Your task to perform on an android device: open app "NewsBreak: Local News & Alerts" (install if not already installed) Image 0: 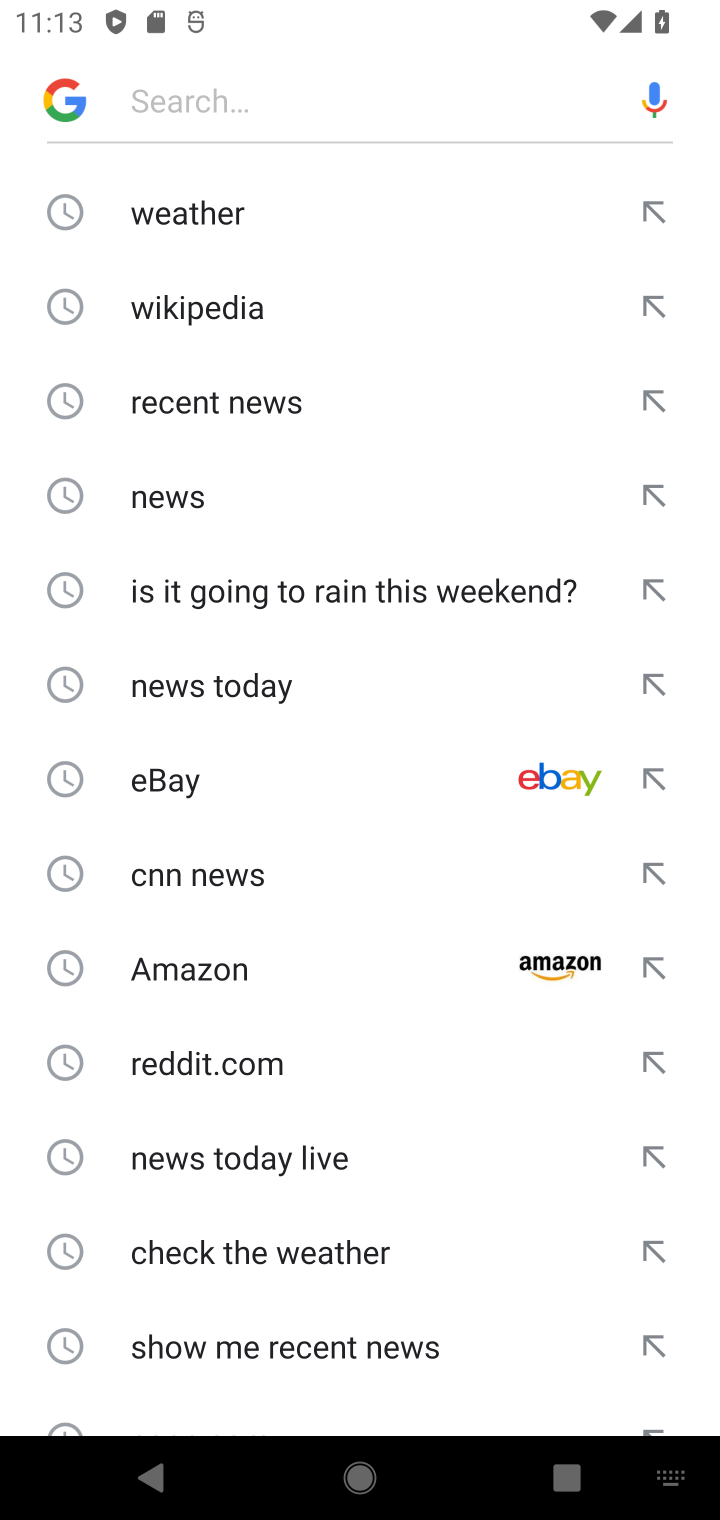
Step 0: press home button
Your task to perform on an android device: open app "NewsBreak: Local News & Alerts" (install if not already installed) Image 1: 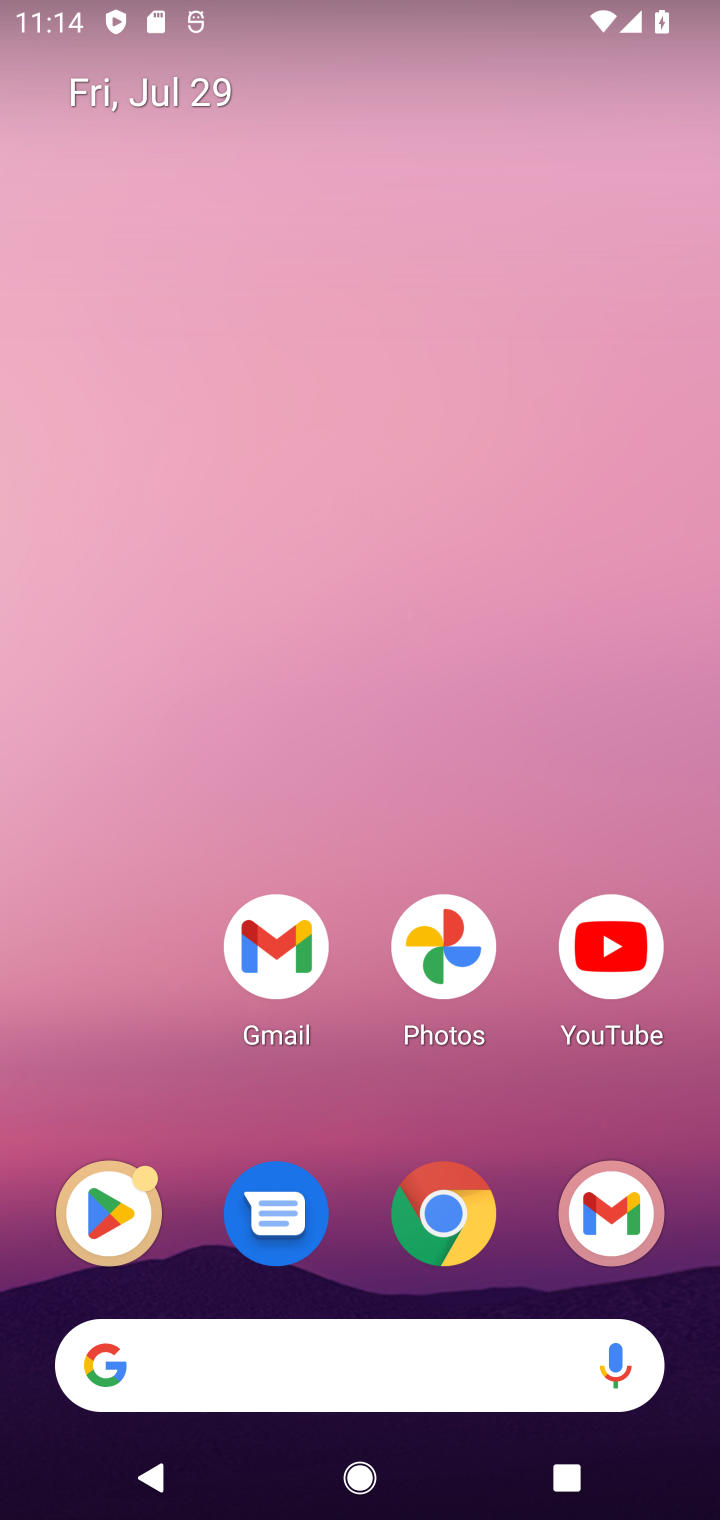
Step 1: click (119, 1201)
Your task to perform on an android device: open app "NewsBreak: Local News & Alerts" (install if not already installed) Image 2: 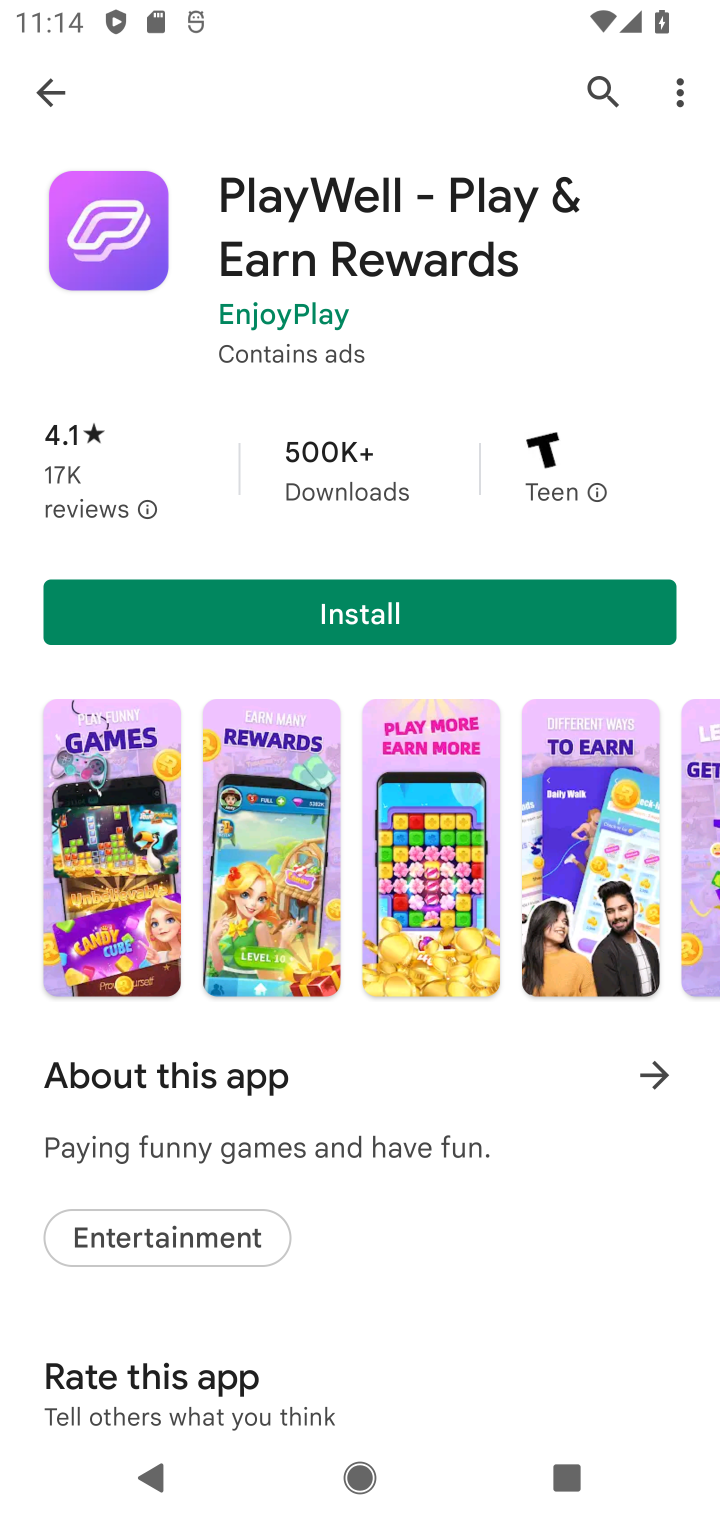
Step 2: click (591, 94)
Your task to perform on an android device: open app "NewsBreak: Local News & Alerts" (install if not already installed) Image 3: 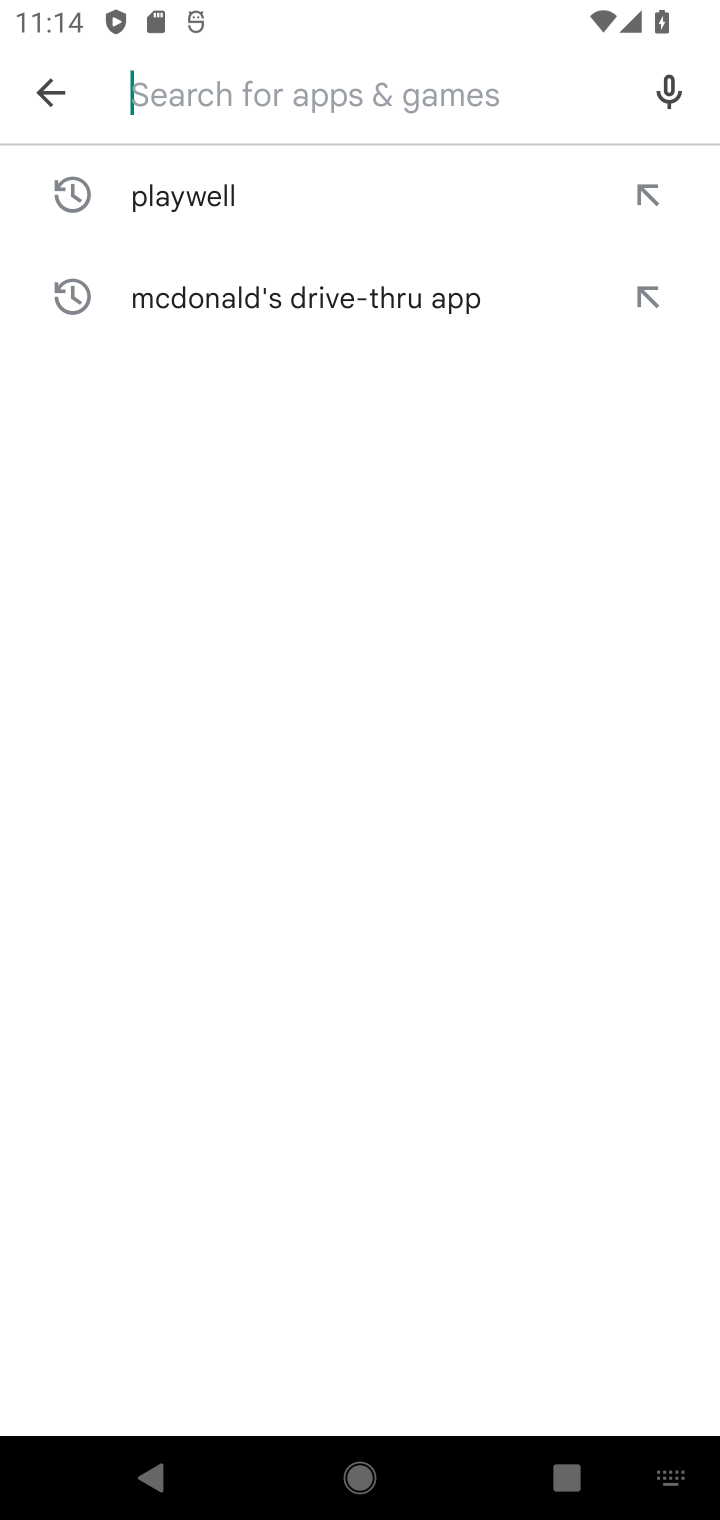
Step 3: type "NewsBreak: Local News & Alerts"
Your task to perform on an android device: open app "NewsBreak: Local News & Alerts" (install if not already installed) Image 4: 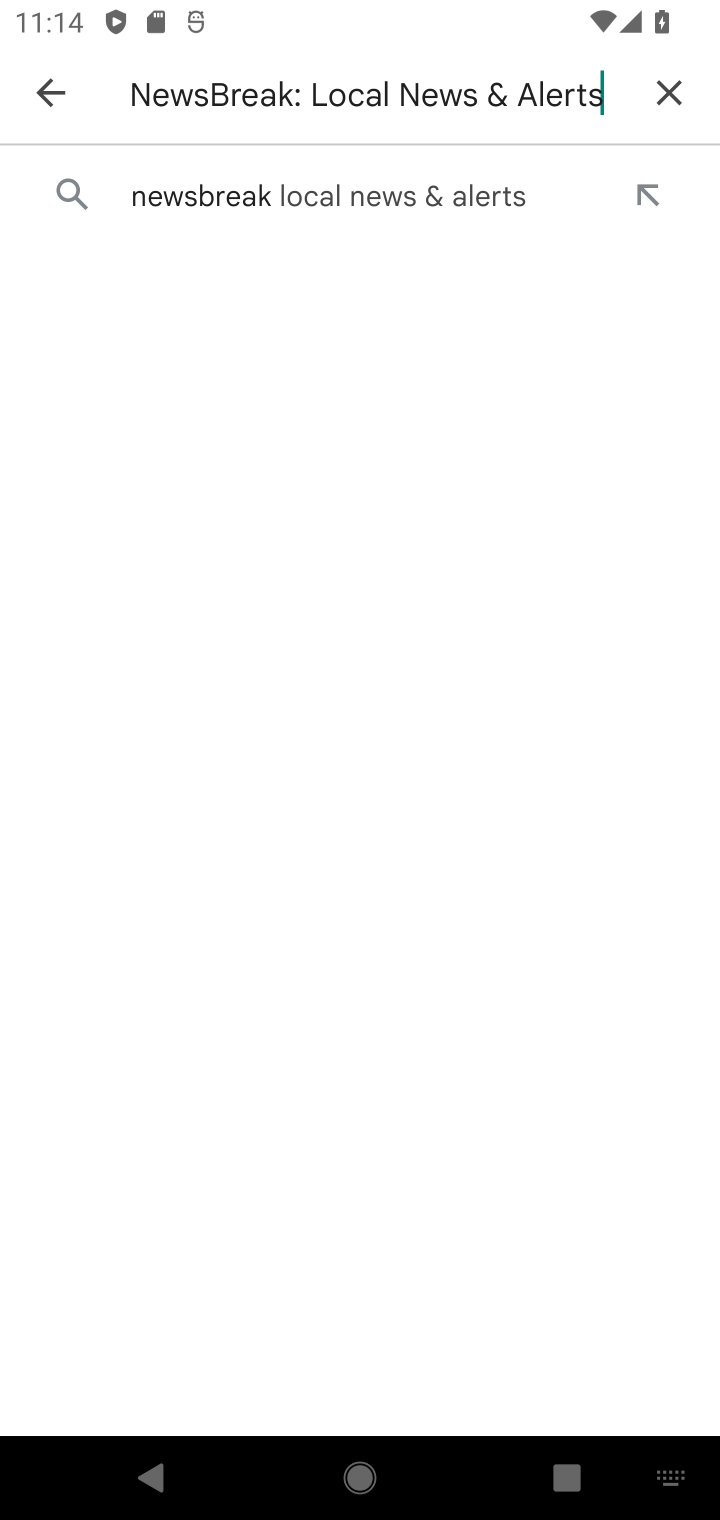
Step 4: click (217, 188)
Your task to perform on an android device: open app "NewsBreak: Local News & Alerts" (install if not already installed) Image 5: 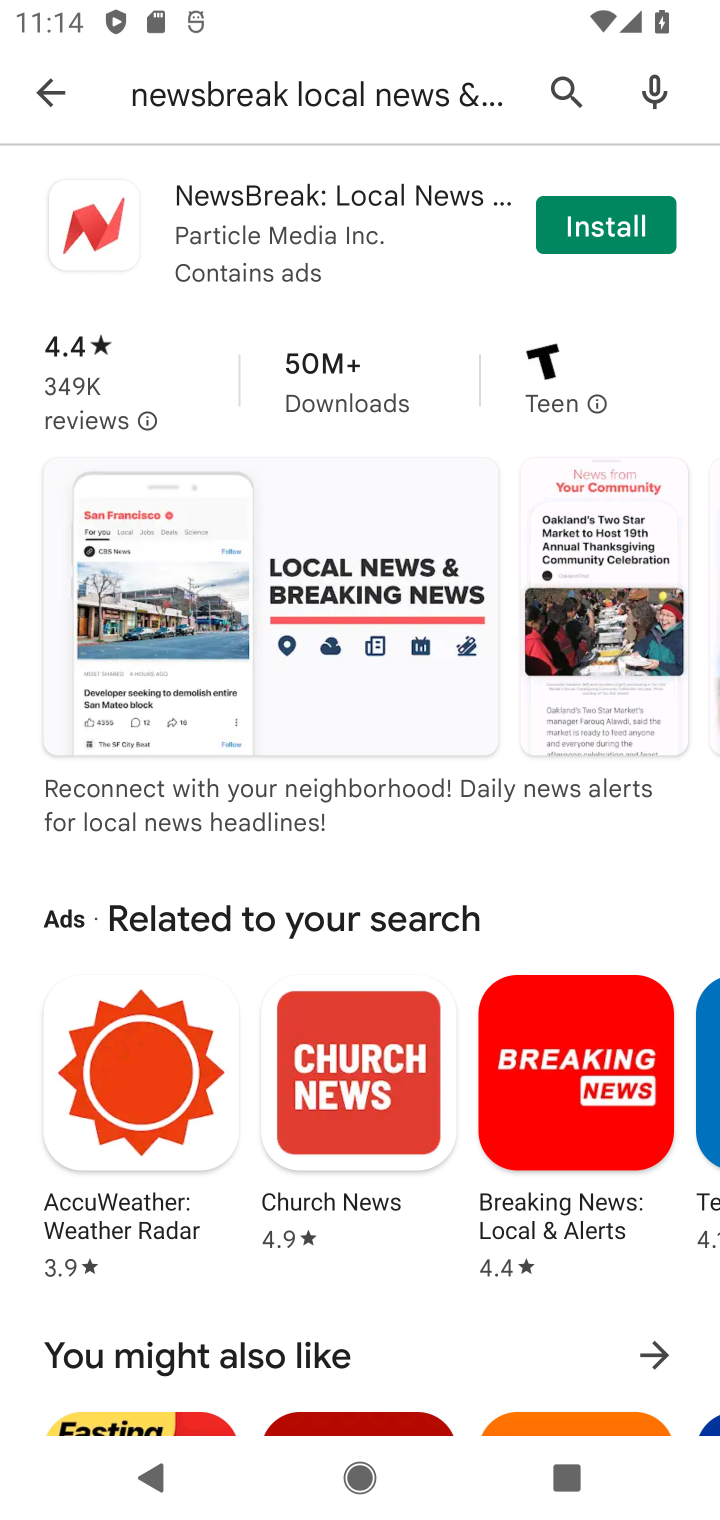
Step 5: click (604, 222)
Your task to perform on an android device: open app "NewsBreak: Local News & Alerts" (install if not already installed) Image 6: 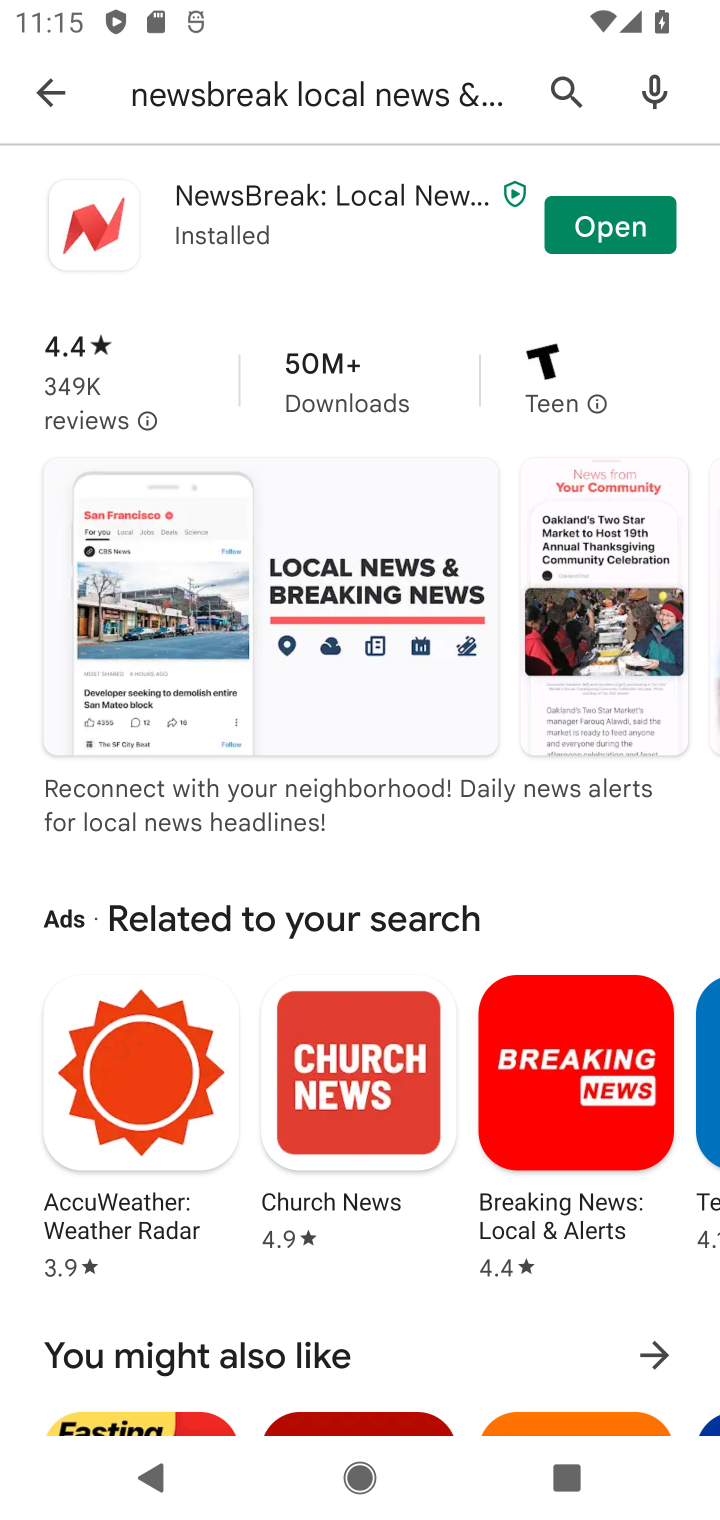
Step 6: task complete